Your task to perform on an android device: Show me the alarms in the clock app Image 0: 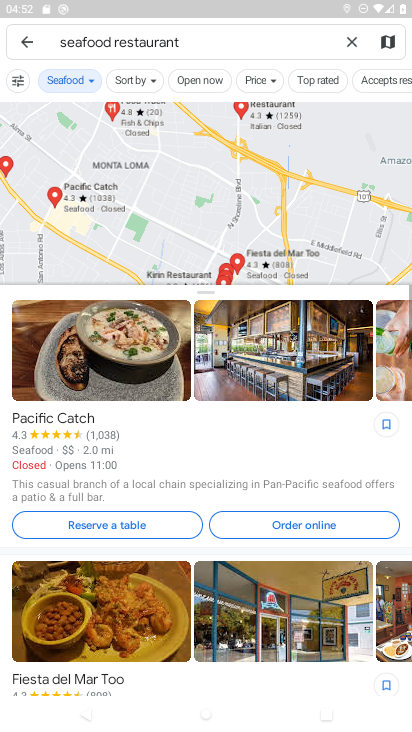
Step 0: press home button
Your task to perform on an android device: Show me the alarms in the clock app Image 1: 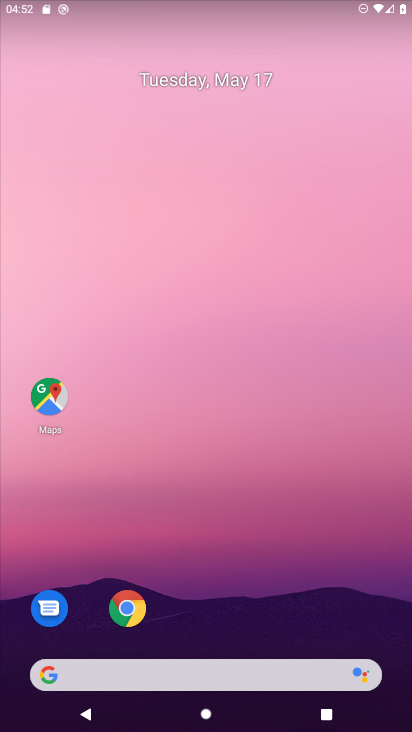
Step 1: drag from (191, 654) to (214, 300)
Your task to perform on an android device: Show me the alarms in the clock app Image 2: 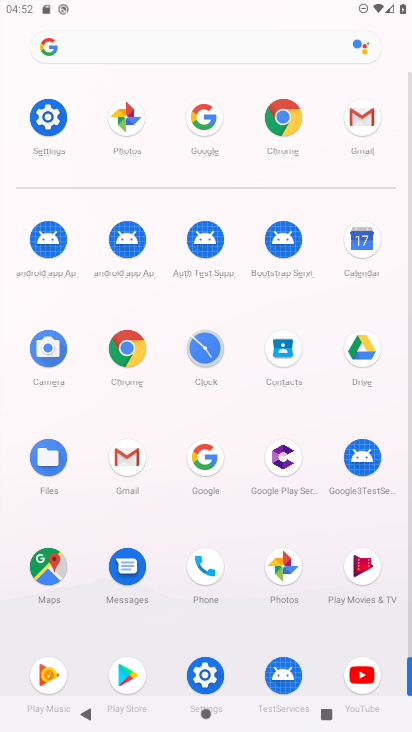
Step 2: click (202, 353)
Your task to perform on an android device: Show me the alarms in the clock app Image 3: 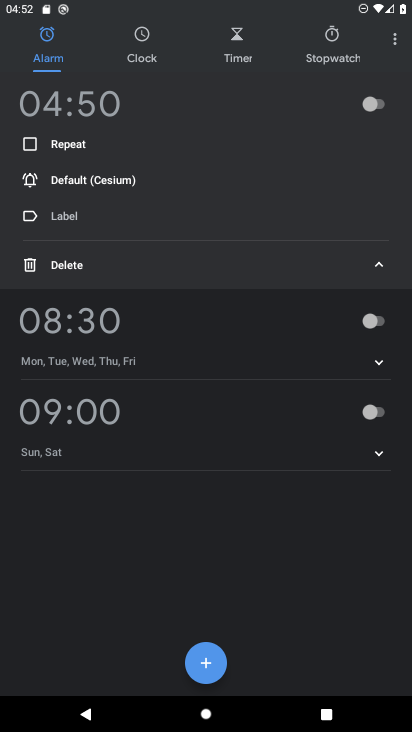
Step 3: task complete